Your task to perform on an android device: Open internet settings Image 0: 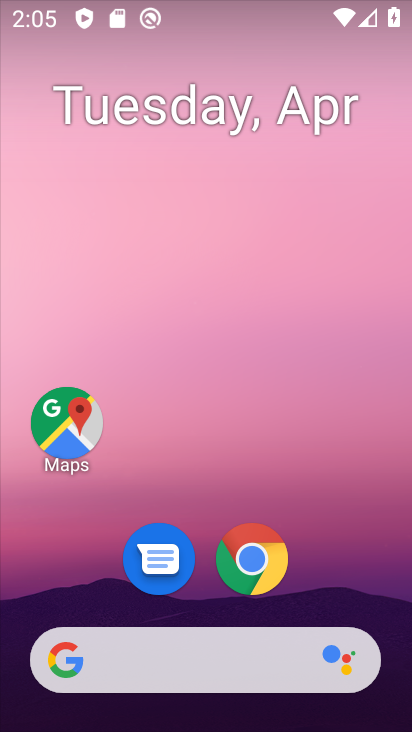
Step 0: drag from (188, 601) to (208, 199)
Your task to perform on an android device: Open internet settings Image 1: 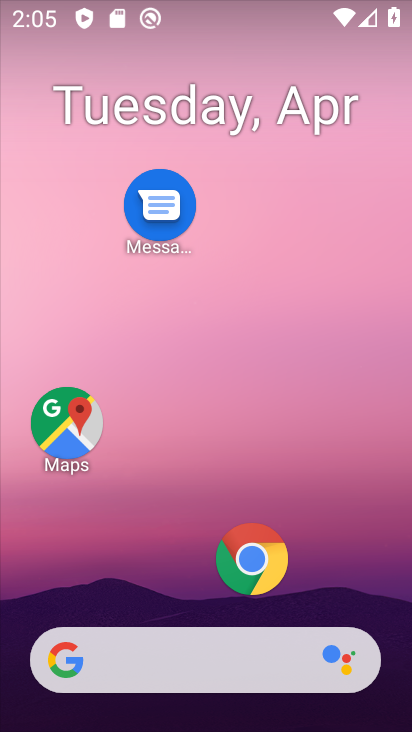
Step 1: drag from (174, 572) to (236, 117)
Your task to perform on an android device: Open internet settings Image 2: 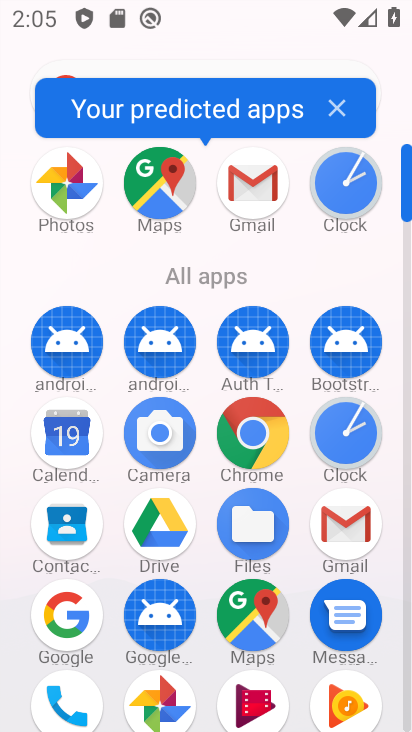
Step 2: drag from (213, 492) to (232, 139)
Your task to perform on an android device: Open internet settings Image 3: 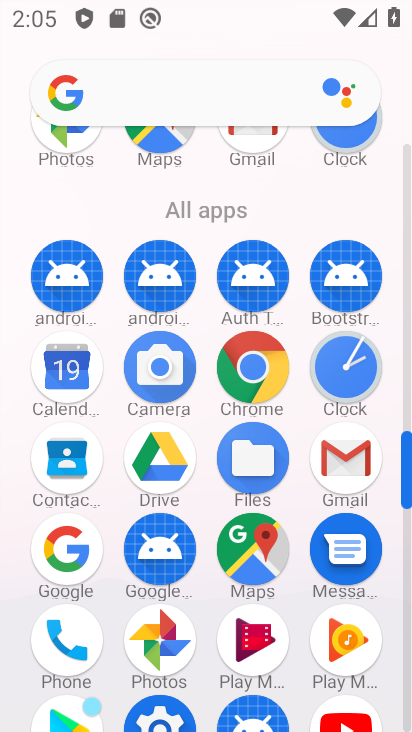
Step 3: drag from (201, 568) to (222, 205)
Your task to perform on an android device: Open internet settings Image 4: 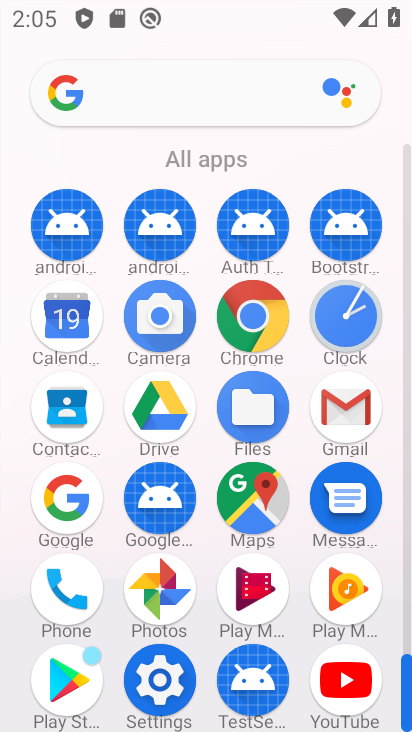
Step 4: click (150, 676)
Your task to perform on an android device: Open internet settings Image 5: 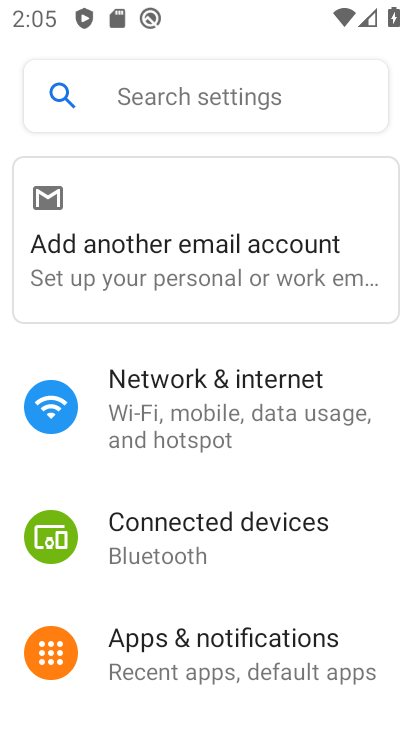
Step 5: click (191, 413)
Your task to perform on an android device: Open internet settings Image 6: 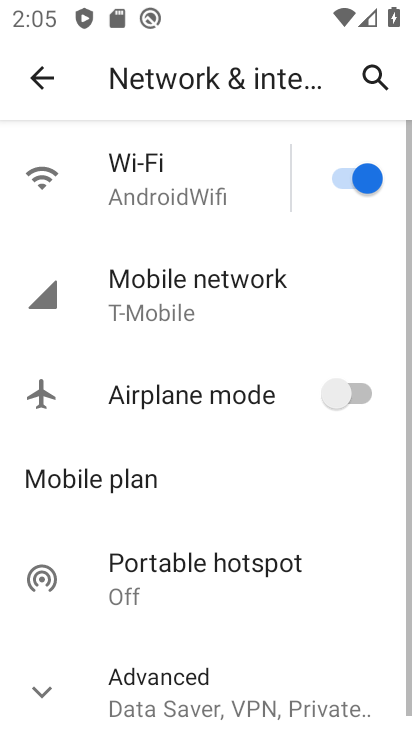
Step 6: task complete